Your task to perform on an android device: Open Google Chrome Image 0: 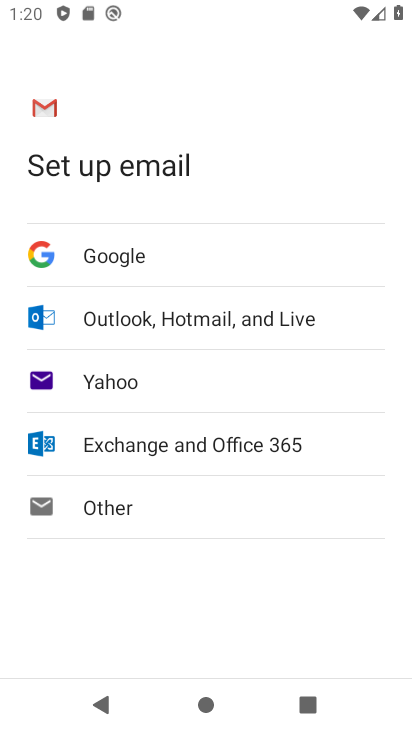
Step 0: press home button
Your task to perform on an android device: Open Google Chrome Image 1: 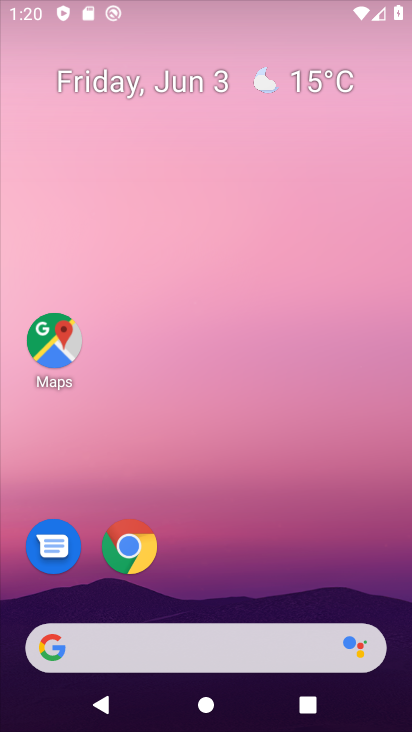
Step 1: drag from (353, 549) to (309, 192)
Your task to perform on an android device: Open Google Chrome Image 2: 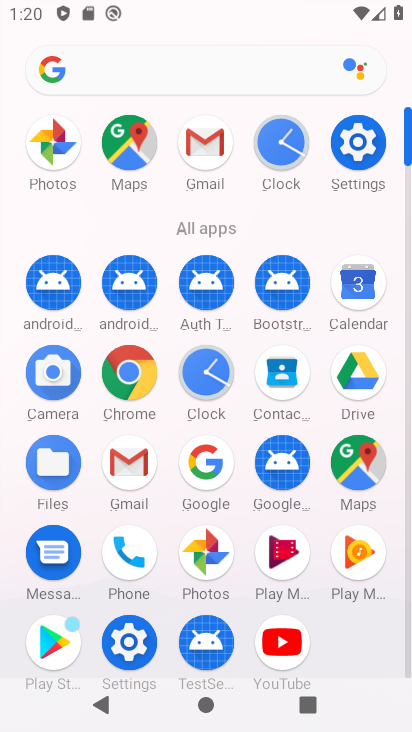
Step 2: click (165, 384)
Your task to perform on an android device: Open Google Chrome Image 3: 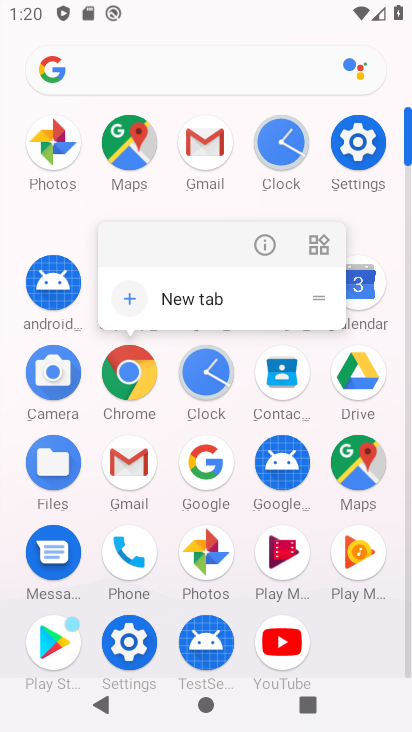
Step 3: click (136, 400)
Your task to perform on an android device: Open Google Chrome Image 4: 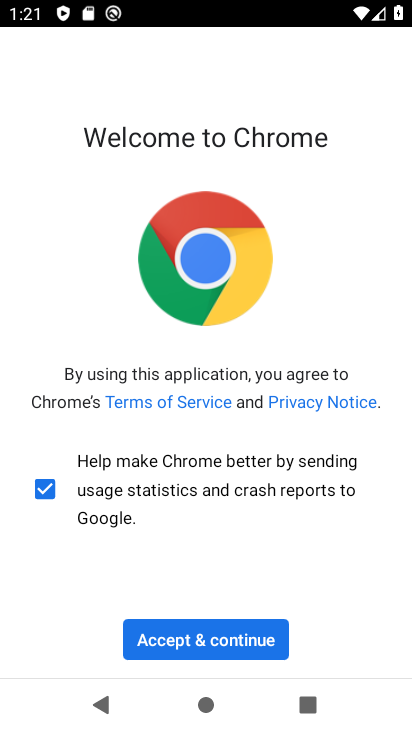
Step 4: click (178, 628)
Your task to perform on an android device: Open Google Chrome Image 5: 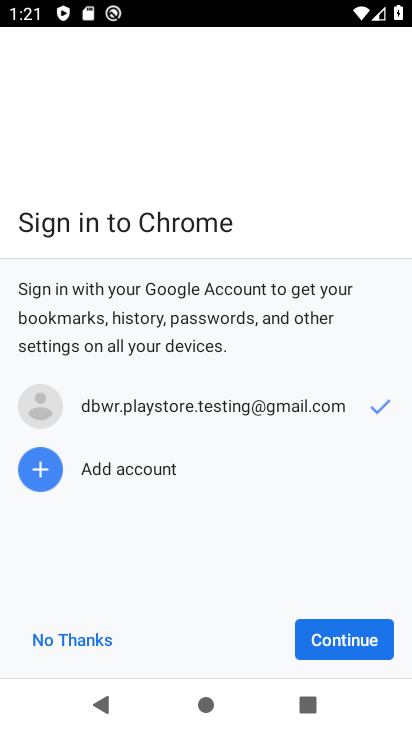
Step 5: click (316, 637)
Your task to perform on an android device: Open Google Chrome Image 6: 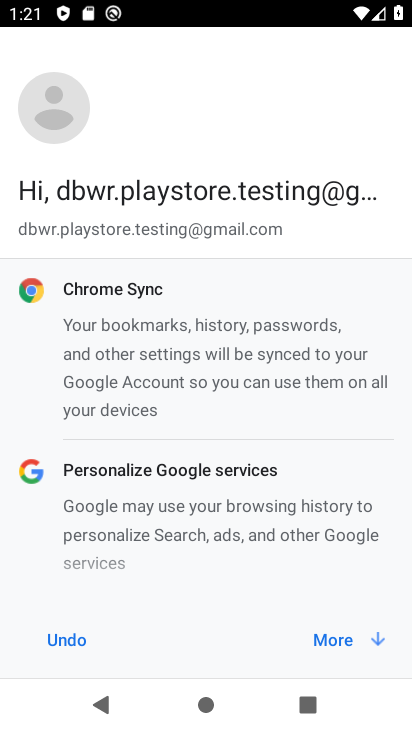
Step 6: click (316, 636)
Your task to perform on an android device: Open Google Chrome Image 7: 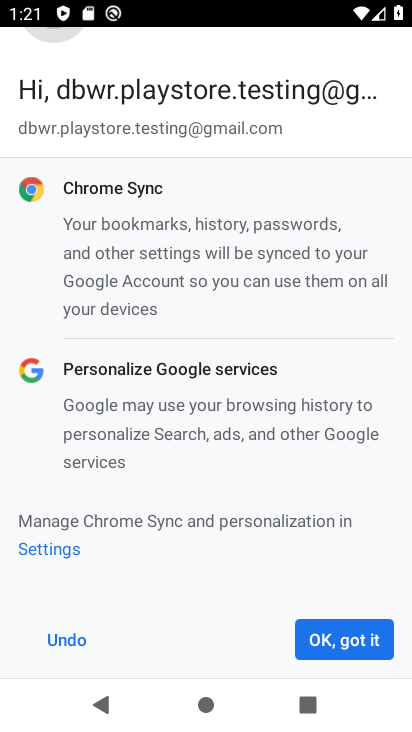
Step 7: click (316, 632)
Your task to perform on an android device: Open Google Chrome Image 8: 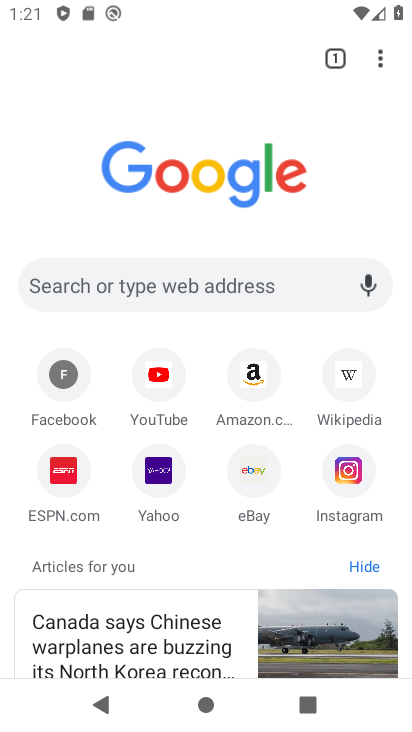
Step 8: task complete